Your task to perform on an android device: turn on showing notifications on the lock screen Image 0: 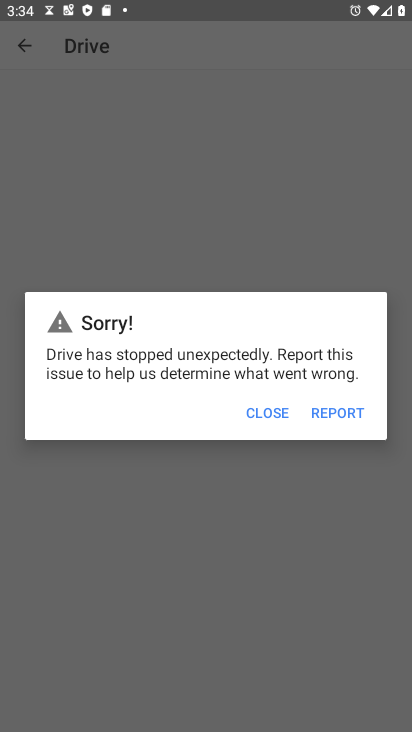
Step 0: press home button
Your task to perform on an android device: turn on showing notifications on the lock screen Image 1: 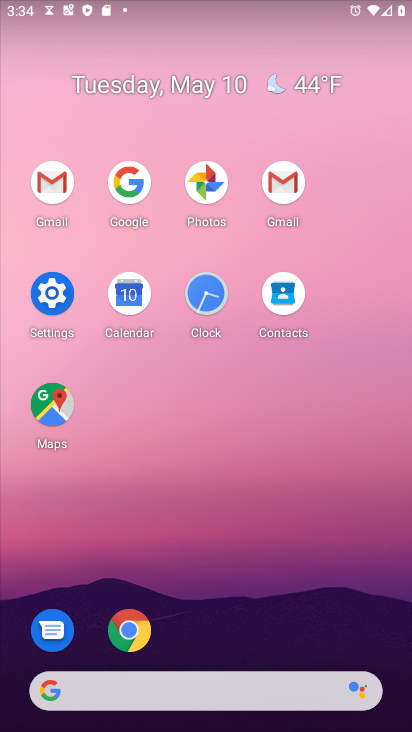
Step 1: click (58, 293)
Your task to perform on an android device: turn on showing notifications on the lock screen Image 2: 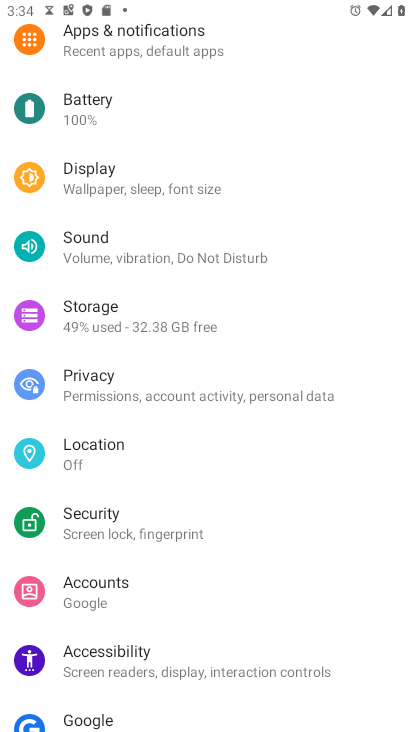
Step 2: click (165, 43)
Your task to perform on an android device: turn on showing notifications on the lock screen Image 3: 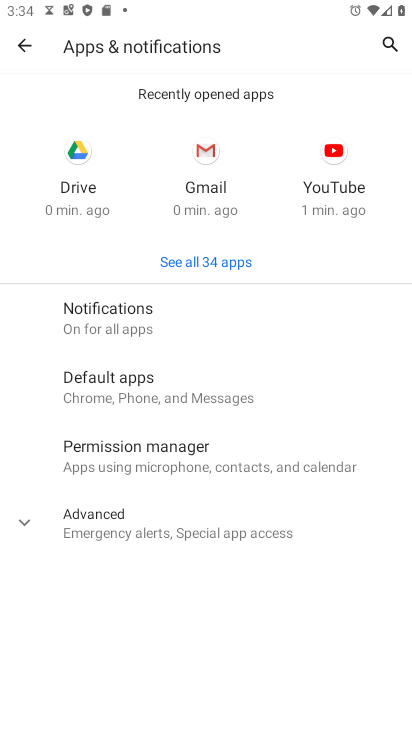
Step 3: click (107, 327)
Your task to perform on an android device: turn on showing notifications on the lock screen Image 4: 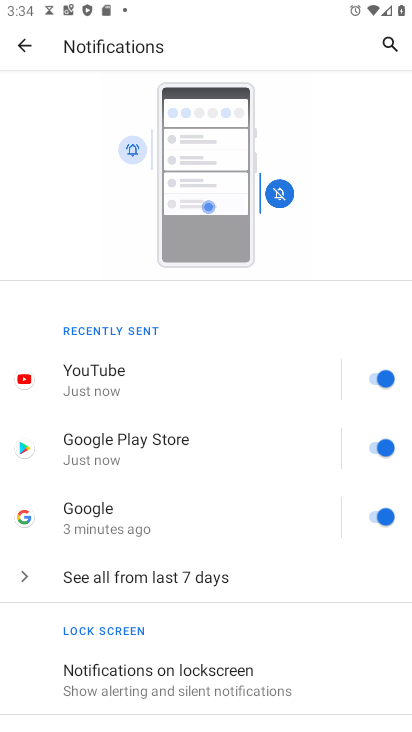
Step 4: click (175, 674)
Your task to perform on an android device: turn on showing notifications on the lock screen Image 5: 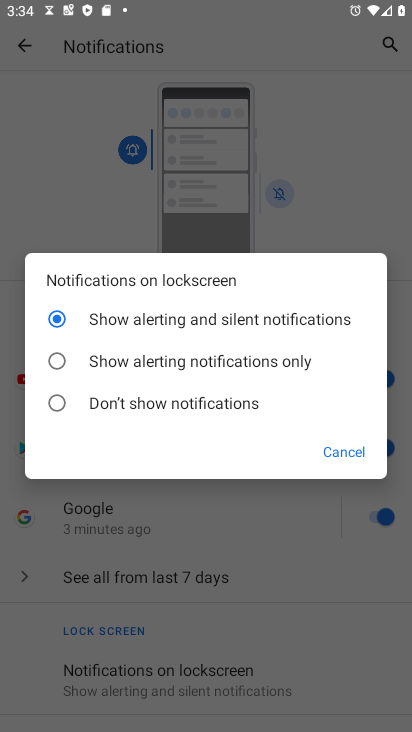
Step 5: task complete